Your task to perform on an android device: change the clock style Image 0: 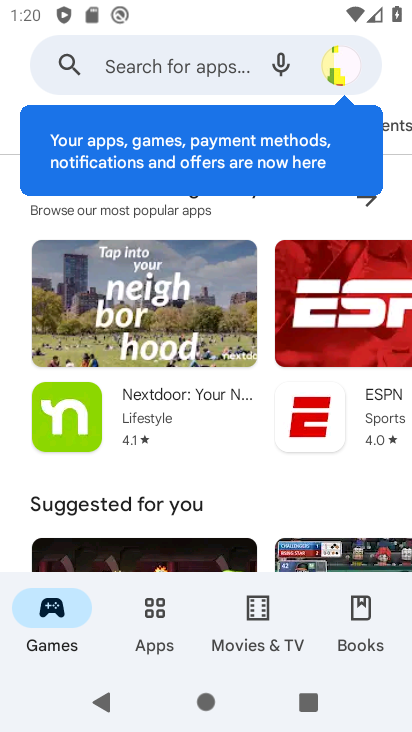
Step 0: press home button
Your task to perform on an android device: change the clock style Image 1: 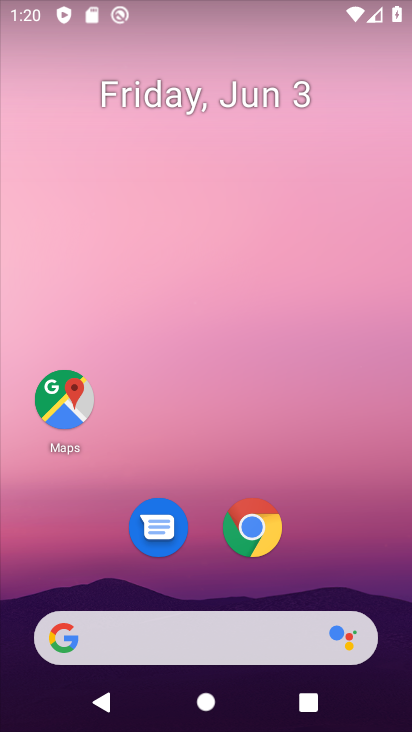
Step 1: drag from (134, 512) to (311, 18)
Your task to perform on an android device: change the clock style Image 2: 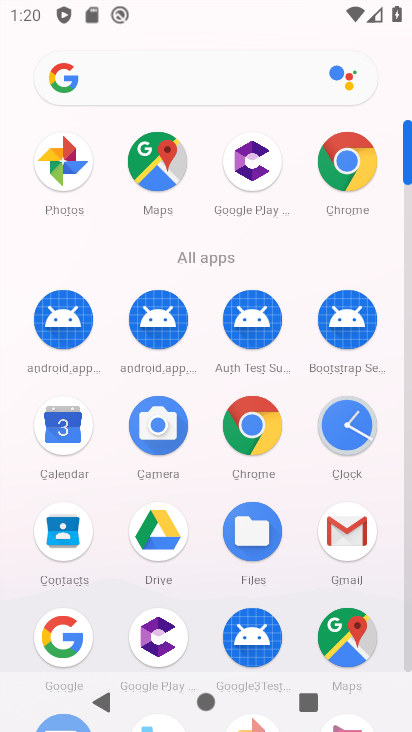
Step 2: click (354, 440)
Your task to perform on an android device: change the clock style Image 3: 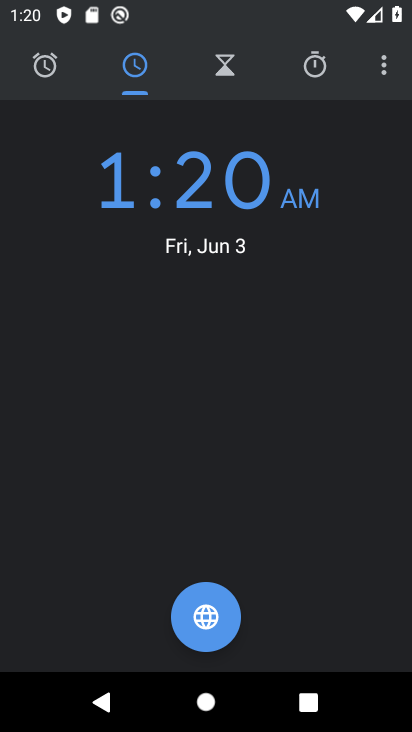
Step 3: click (388, 74)
Your task to perform on an android device: change the clock style Image 4: 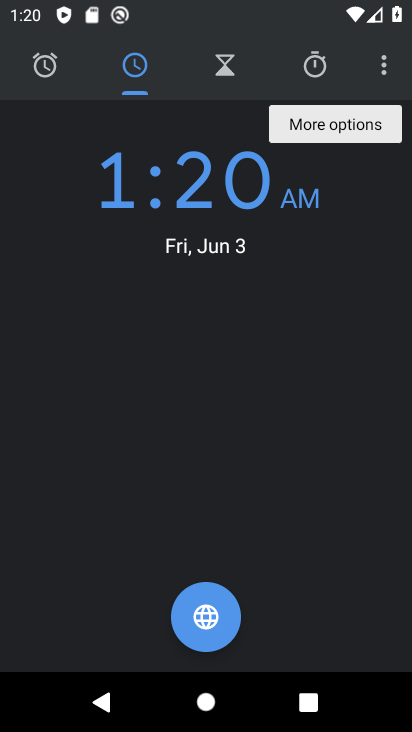
Step 4: click (391, 66)
Your task to perform on an android device: change the clock style Image 5: 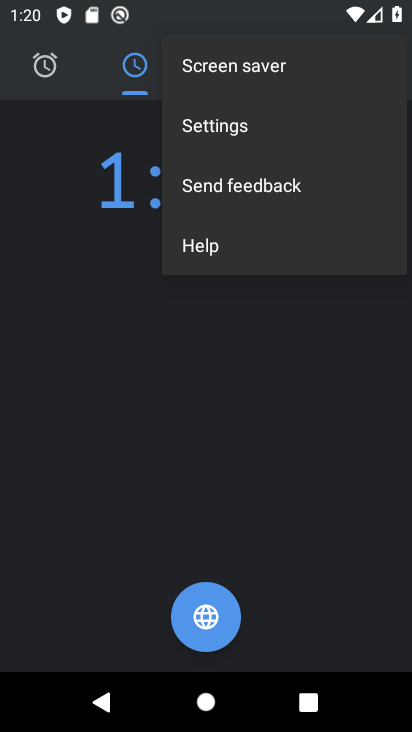
Step 5: click (317, 119)
Your task to perform on an android device: change the clock style Image 6: 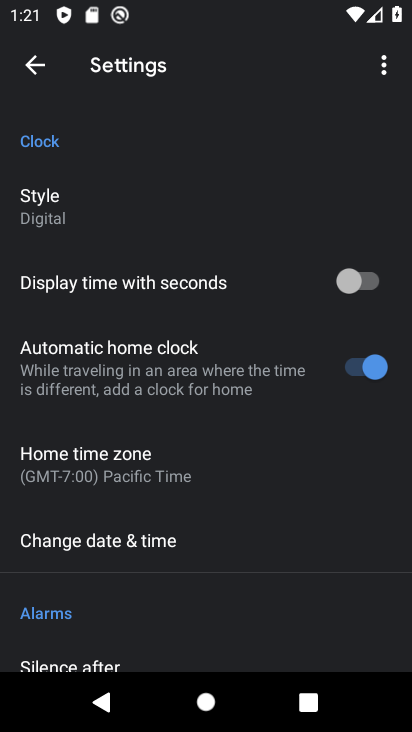
Step 6: click (215, 209)
Your task to perform on an android device: change the clock style Image 7: 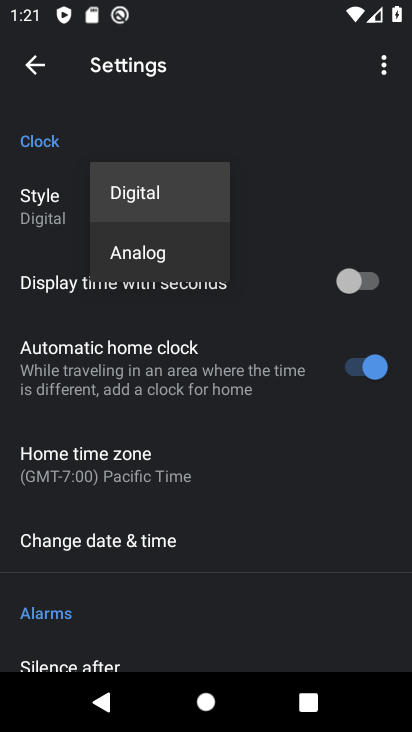
Step 7: click (158, 246)
Your task to perform on an android device: change the clock style Image 8: 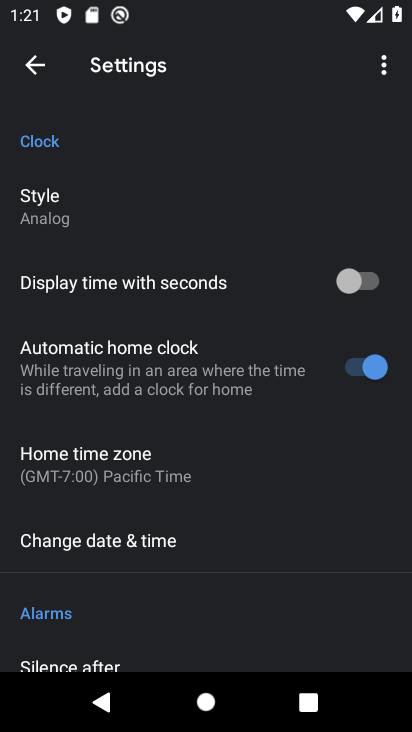
Step 8: task complete